Your task to perform on an android device: toggle data saver in the chrome app Image 0: 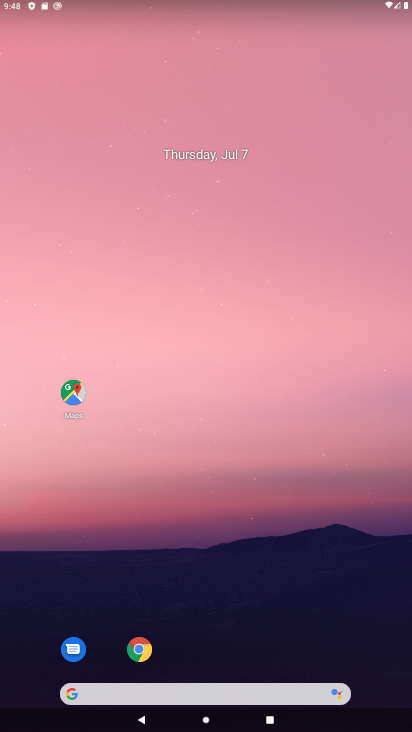
Step 0: click (143, 643)
Your task to perform on an android device: toggle data saver in the chrome app Image 1: 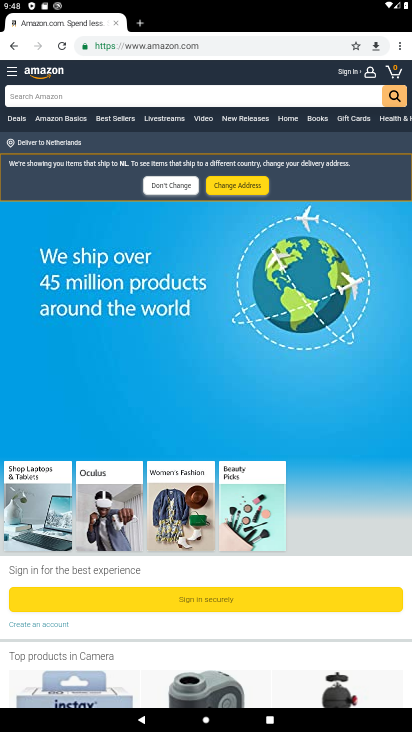
Step 1: click (400, 48)
Your task to perform on an android device: toggle data saver in the chrome app Image 2: 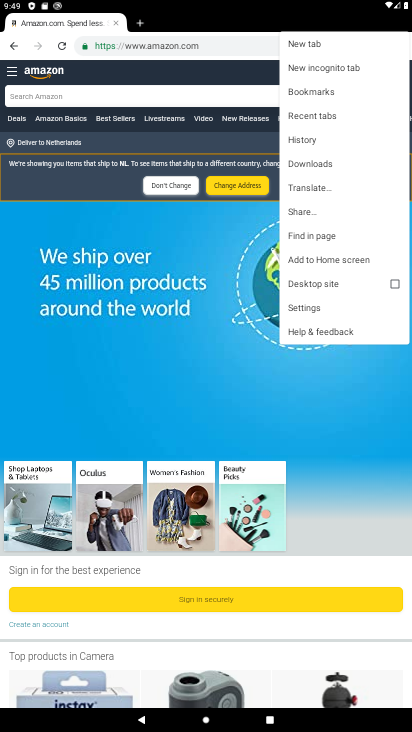
Step 2: click (339, 309)
Your task to perform on an android device: toggle data saver in the chrome app Image 3: 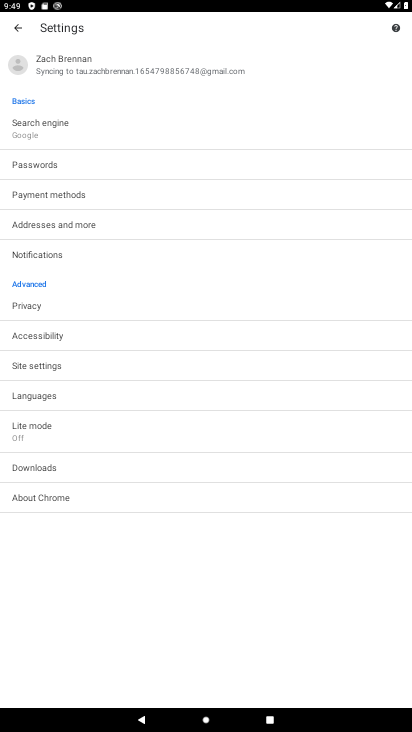
Step 3: click (74, 430)
Your task to perform on an android device: toggle data saver in the chrome app Image 4: 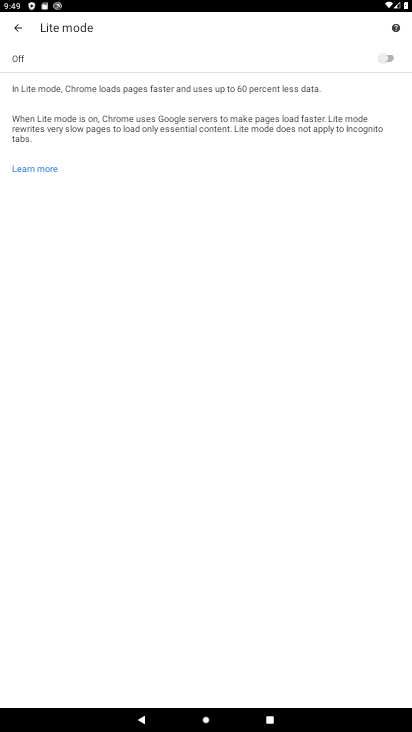
Step 4: click (394, 55)
Your task to perform on an android device: toggle data saver in the chrome app Image 5: 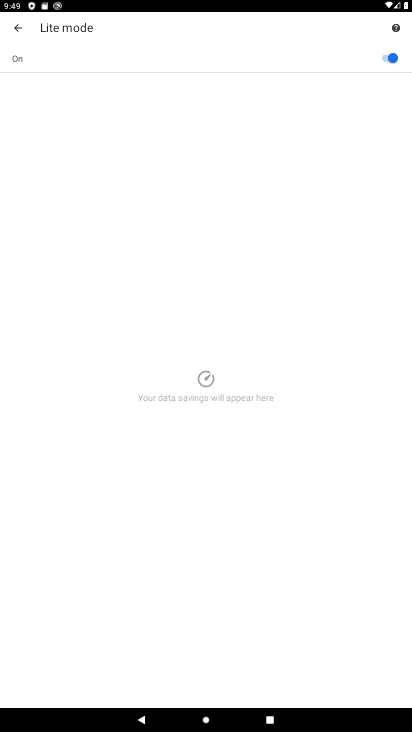
Step 5: task complete